Your task to perform on an android device: install app "Google Docs" Image 0: 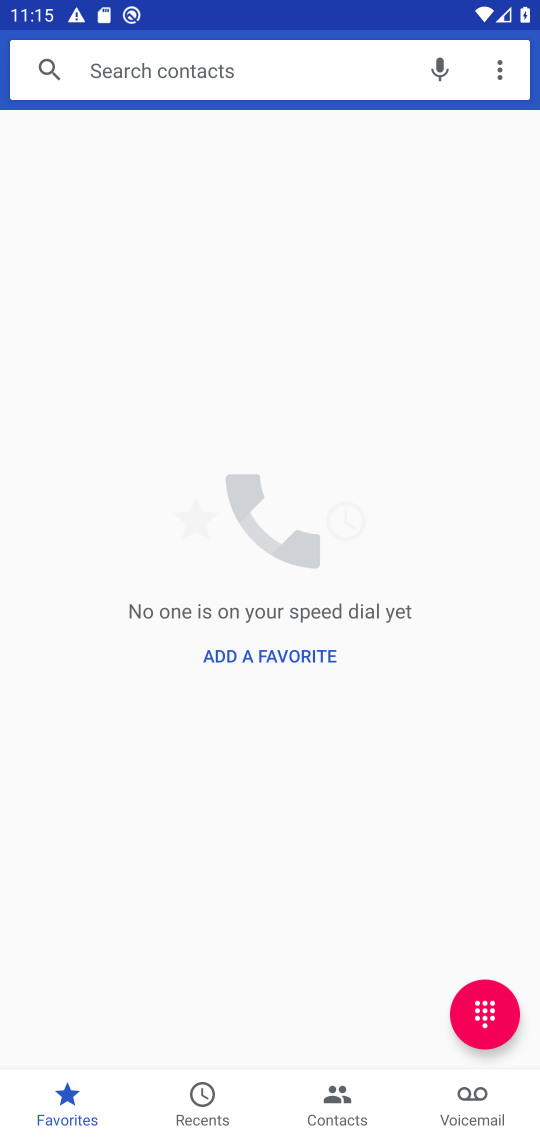
Step 0: press home button
Your task to perform on an android device: install app "Google Docs" Image 1: 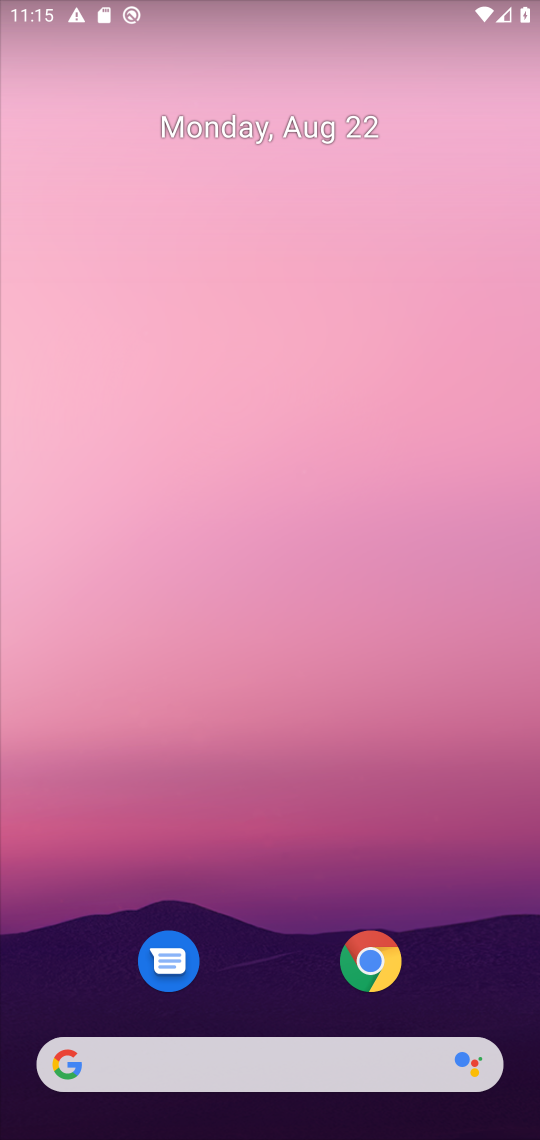
Step 1: drag from (308, 1007) to (335, 102)
Your task to perform on an android device: install app "Google Docs" Image 2: 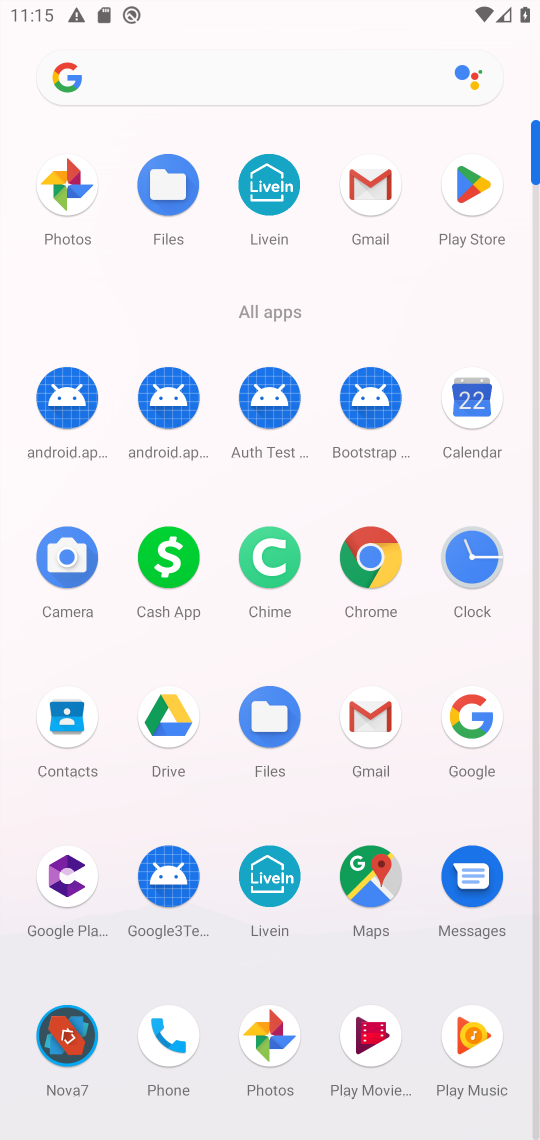
Step 2: click (450, 201)
Your task to perform on an android device: install app "Google Docs" Image 3: 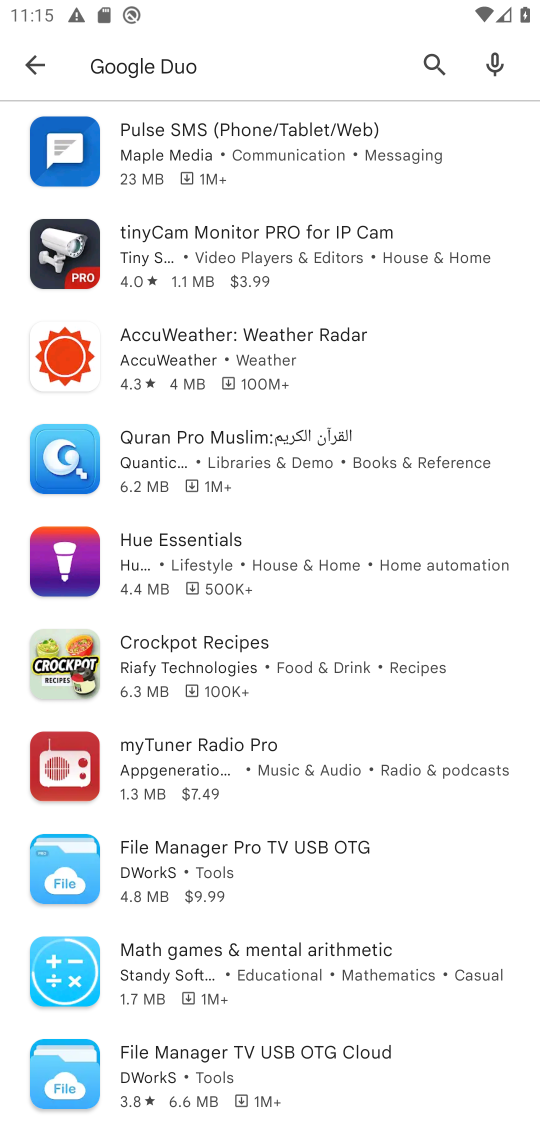
Step 3: click (413, 75)
Your task to perform on an android device: install app "Google Docs" Image 4: 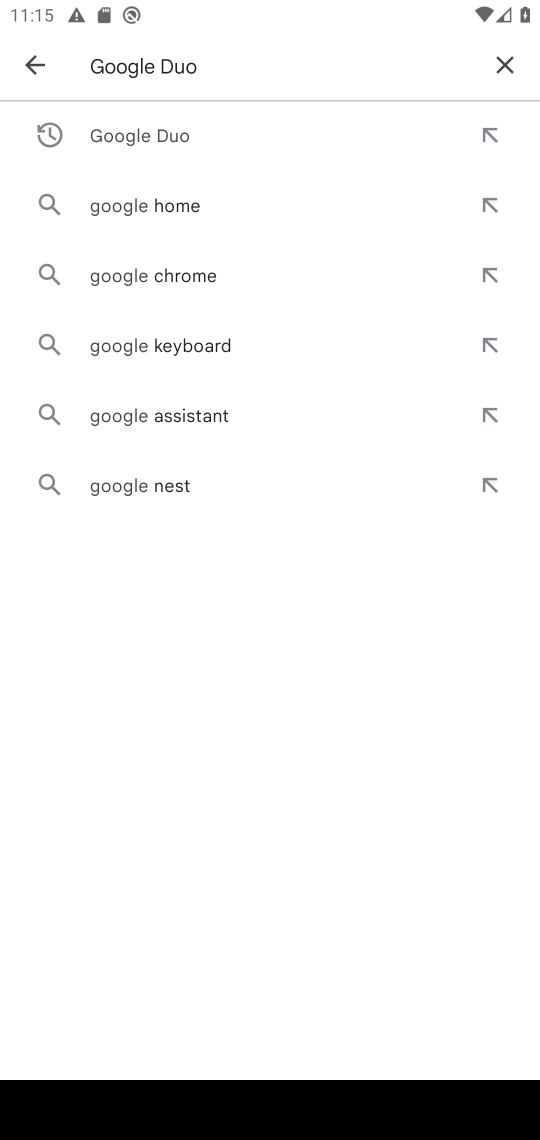
Step 4: click (512, 75)
Your task to perform on an android device: install app "Google Docs" Image 5: 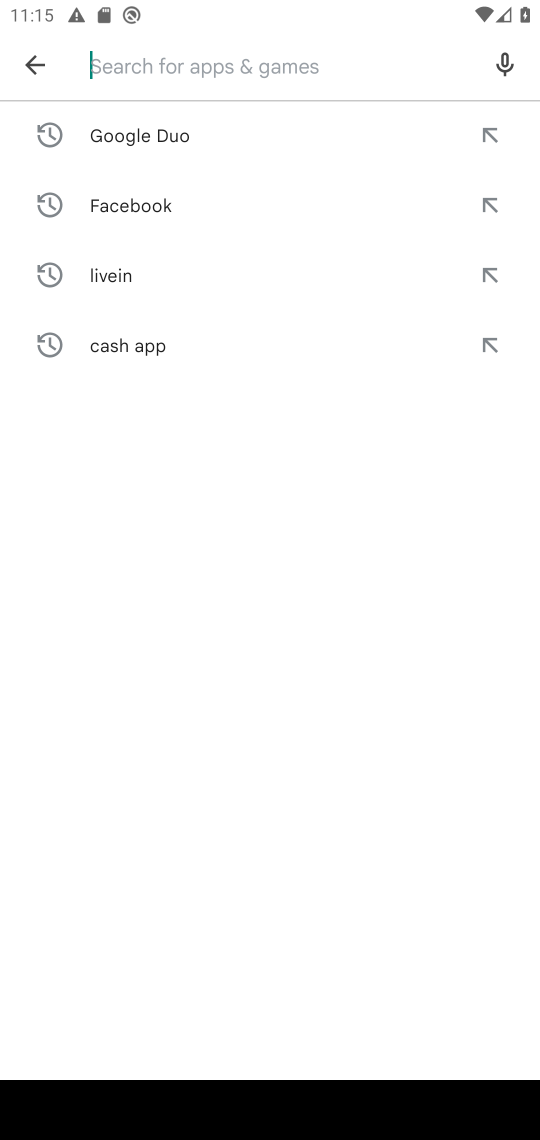
Step 5: type "googlr doc"
Your task to perform on an android device: install app "Google Docs" Image 6: 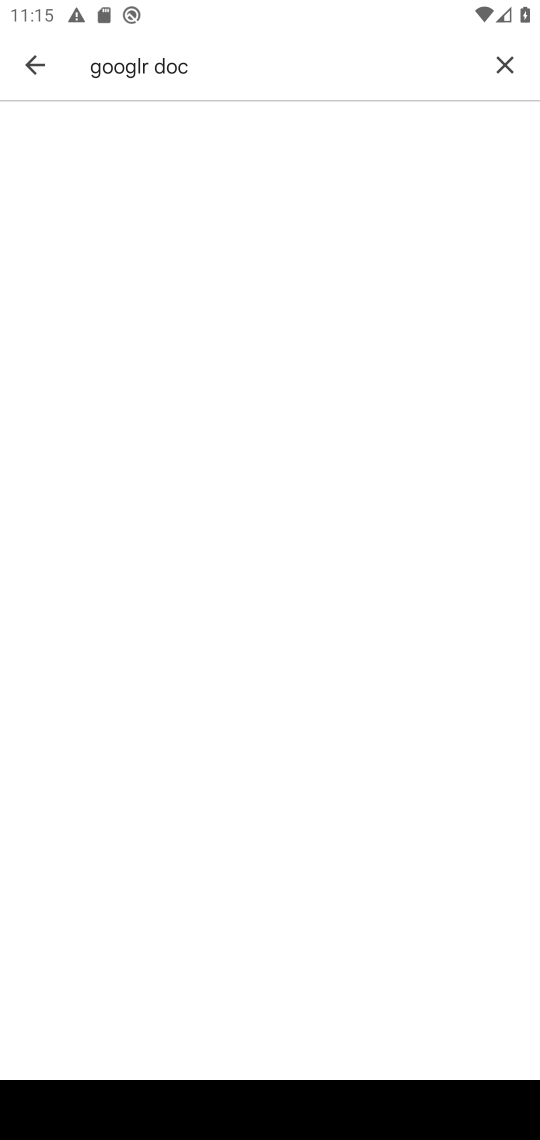
Step 6: task complete